Your task to perform on an android device: clear history in the chrome app Image 0: 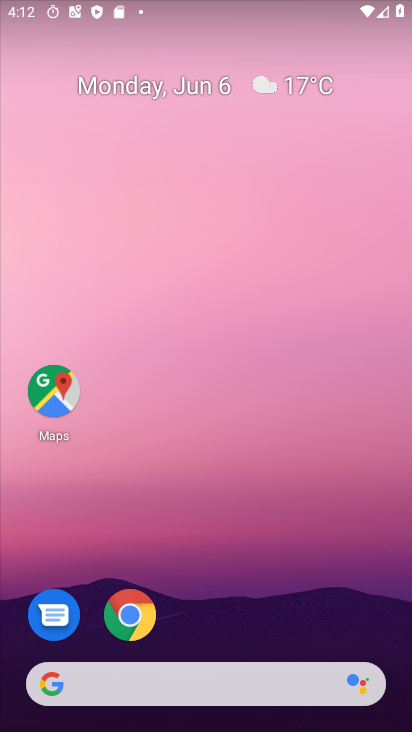
Step 0: drag from (301, 670) to (298, 19)
Your task to perform on an android device: clear history in the chrome app Image 1: 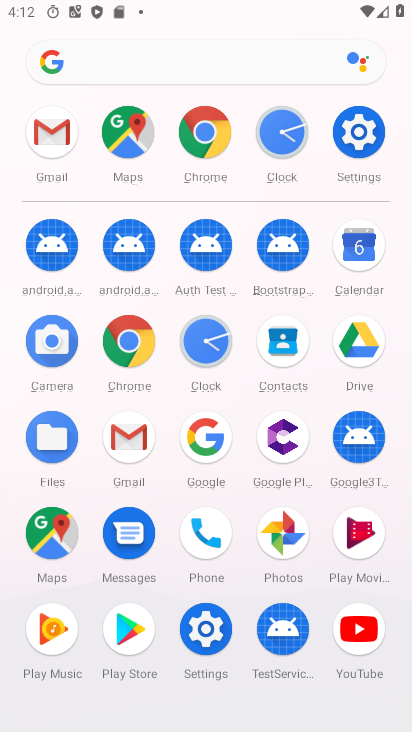
Step 1: click (139, 335)
Your task to perform on an android device: clear history in the chrome app Image 2: 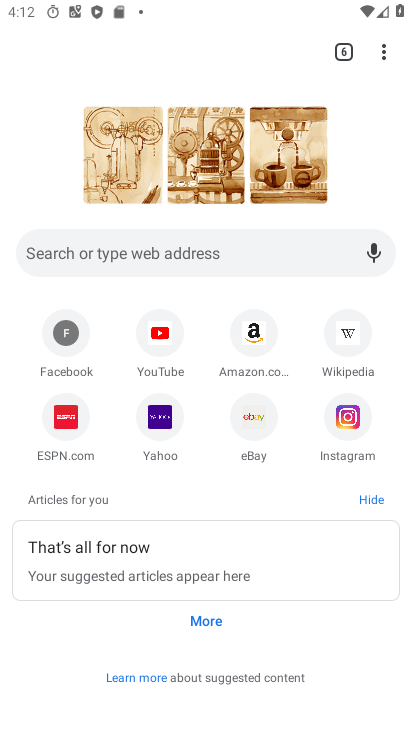
Step 2: task complete